Your task to perform on an android device: Go to Yahoo.com Image 0: 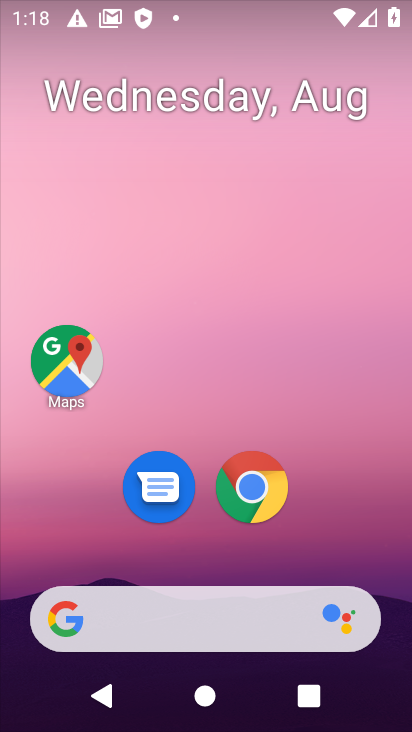
Step 0: press home button
Your task to perform on an android device: Go to Yahoo.com Image 1: 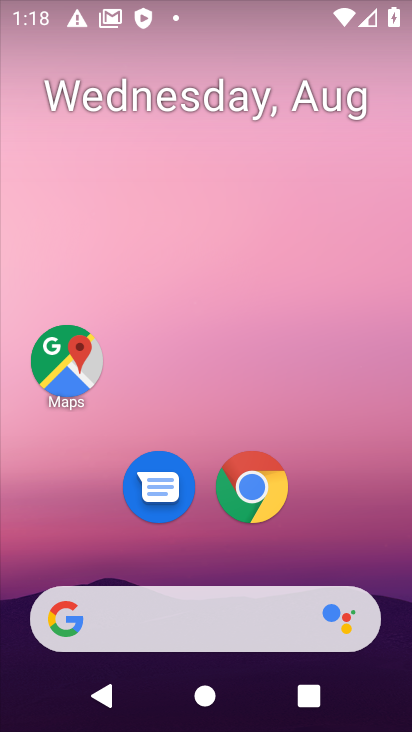
Step 1: click (68, 617)
Your task to perform on an android device: Go to Yahoo.com Image 2: 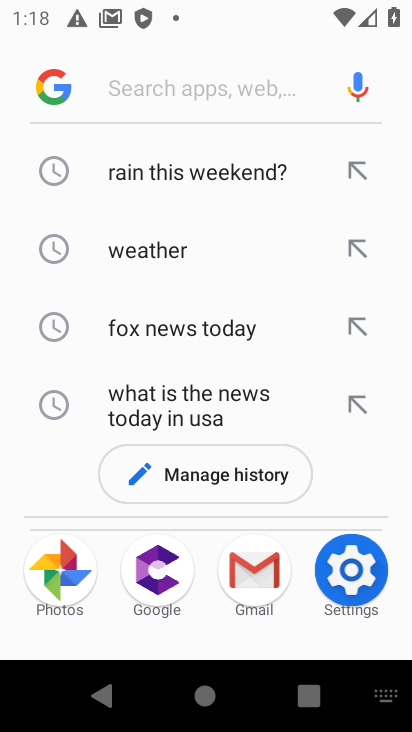
Step 2: type "Yahoo.com"
Your task to perform on an android device: Go to Yahoo.com Image 3: 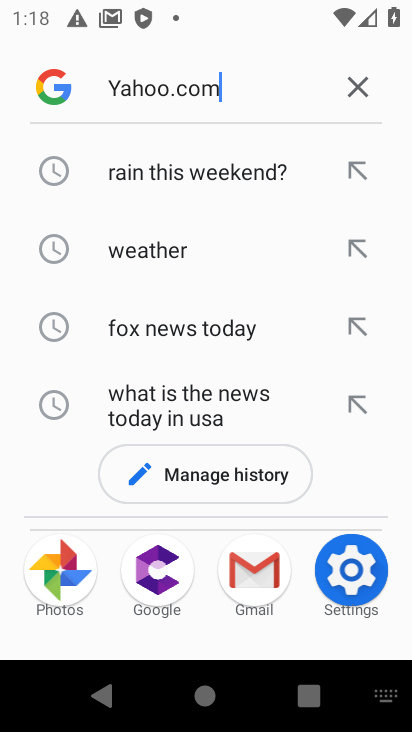
Step 3: press enter
Your task to perform on an android device: Go to Yahoo.com Image 4: 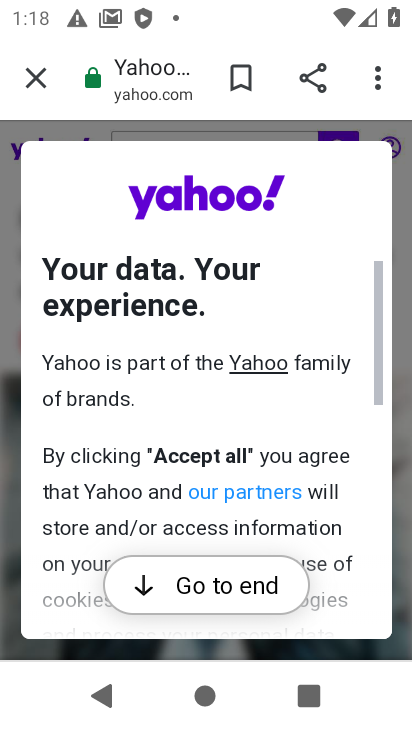
Step 4: click (224, 579)
Your task to perform on an android device: Go to Yahoo.com Image 5: 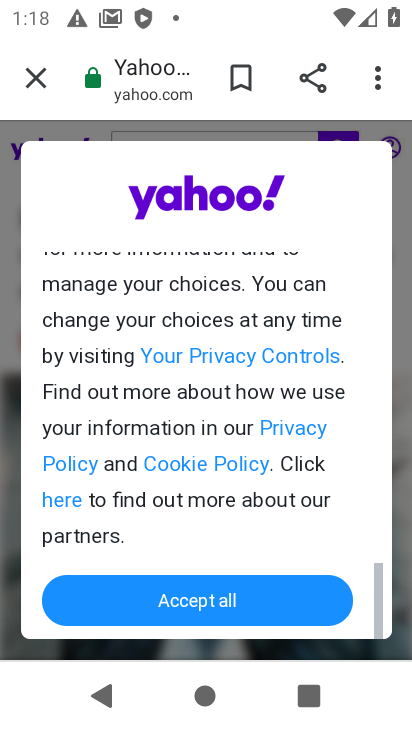
Step 5: click (174, 595)
Your task to perform on an android device: Go to Yahoo.com Image 6: 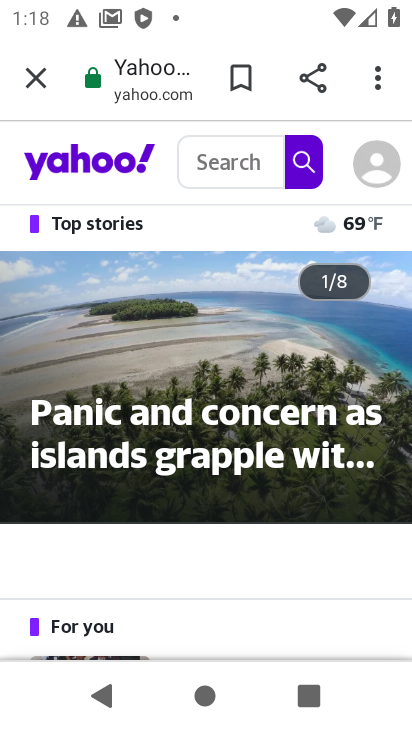
Step 6: task complete